Your task to perform on an android device: Go to internet settings Image 0: 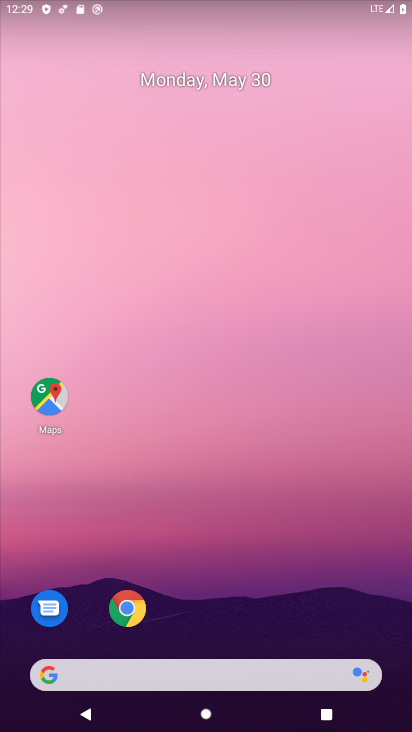
Step 0: drag from (248, 635) to (375, 46)
Your task to perform on an android device: Go to internet settings Image 1: 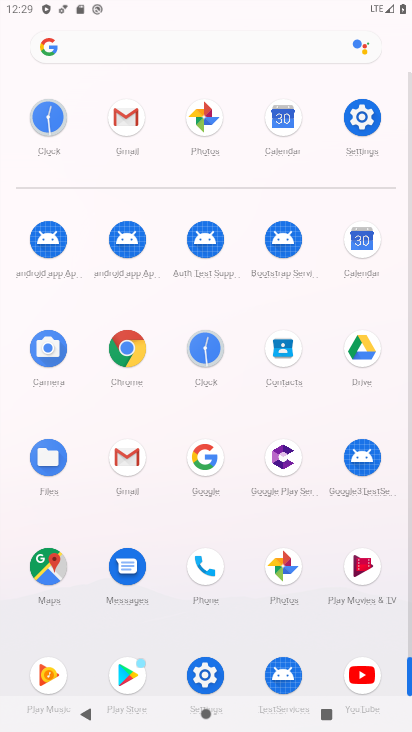
Step 1: click (196, 669)
Your task to perform on an android device: Go to internet settings Image 2: 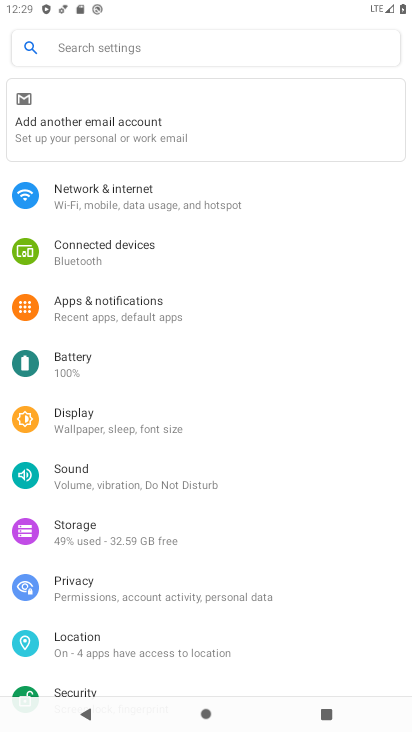
Step 2: click (153, 214)
Your task to perform on an android device: Go to internet settings Image 3: 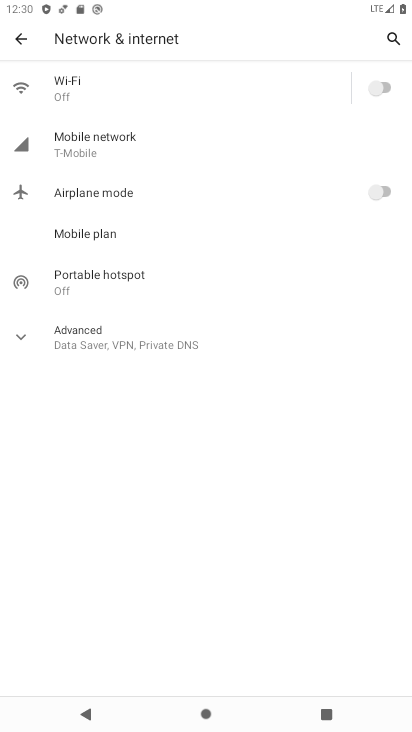
Step 3: task complete